Your task to perform on an android device: turn off improve location accuracy Image 0: 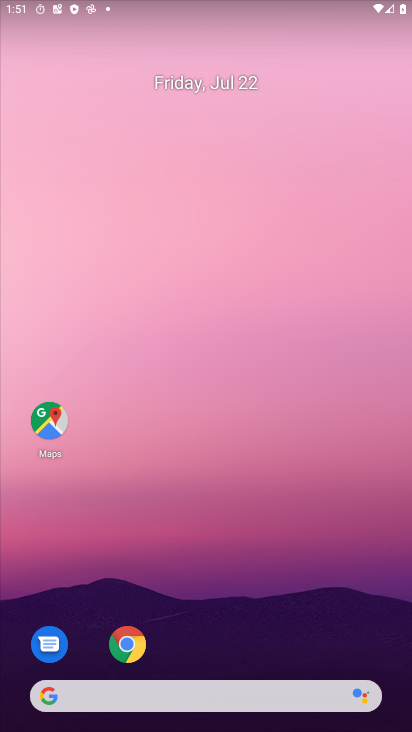
Step 0: drag from (250, 661) to (305, 188)
Your task to perform on an android device: turn off improve location accuracy Image 1: 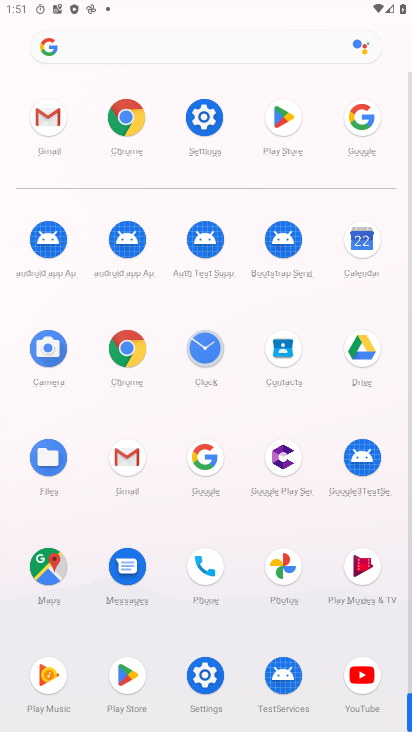
Step 1: click (226, 137)
Your task to perform on an android device: turn off improve location accuracy Image 2: 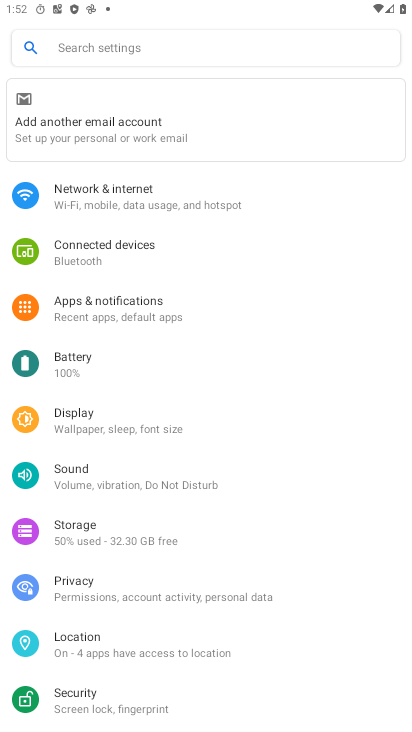
Step 2: click (138, 654)
Your task to perform on an android device: turn off improve location accuracy Image 3: 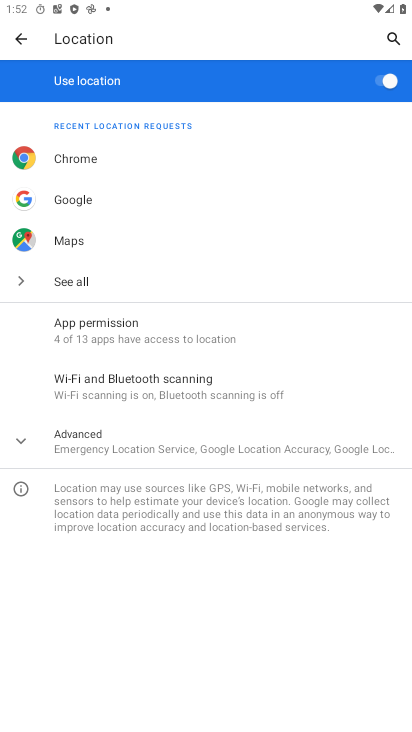
Step 3: click (183, 450)
Your task to perform on an android device: turn off improve location accuracy Image 4: 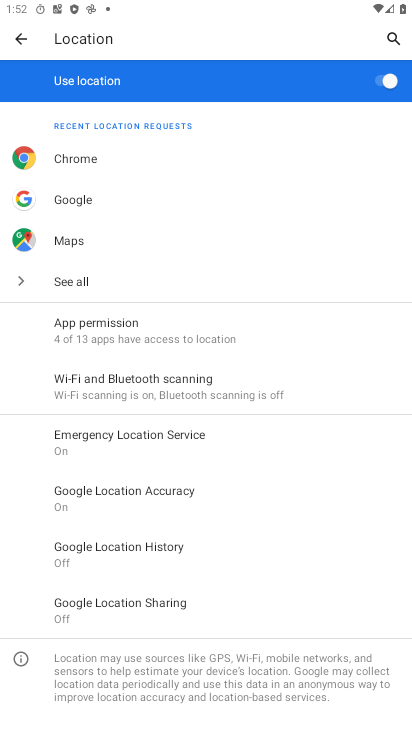
Step 4: click (147, 499)
Your task to perform on an android device: turn off improve location accuracy Image 5: 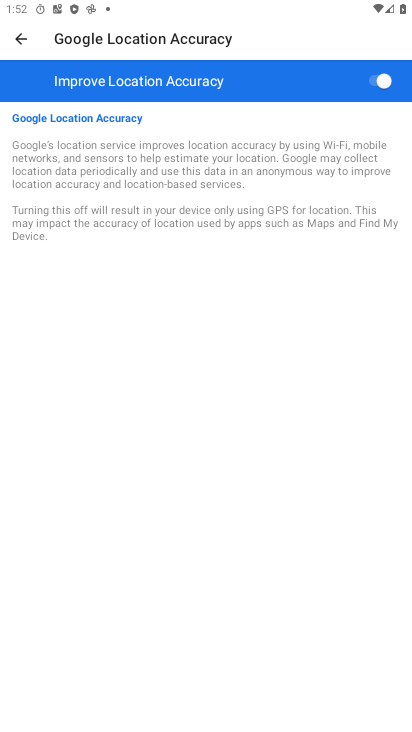
Step 5: click (380, 83)
Your task to perform on an android device: turn off improve location accuracy Image 6: 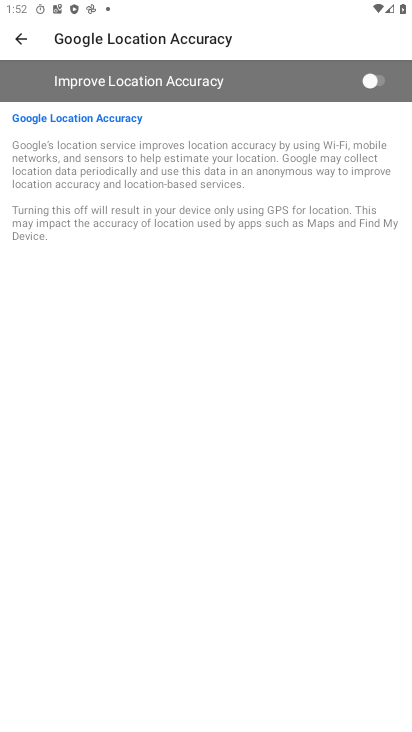
Step 6: task complete